Your task to perform on an android device: Open calendar and show me the first week of next month Image 0: 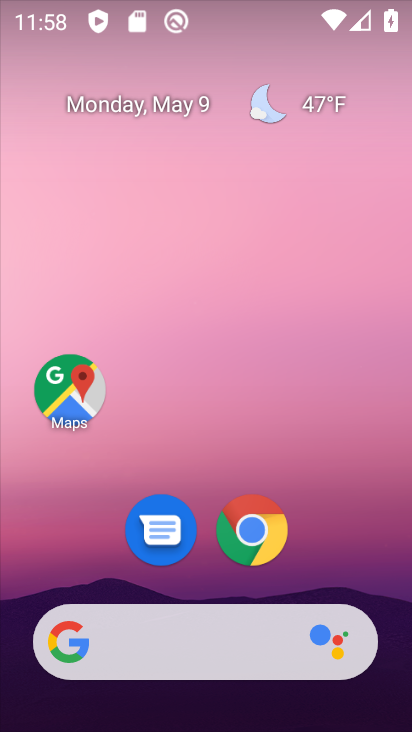
Step 0: drag from (335, 559) to (399, 156)
Your task to perform on an android device: Open calendar and show me the first week of next month Image 1: 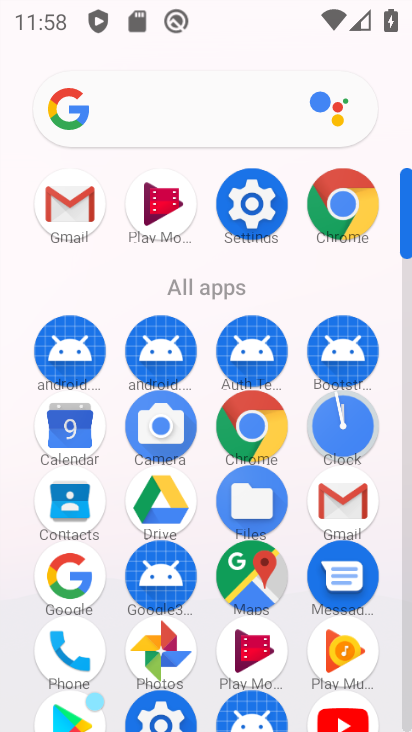
Step 1: click (81, 438)
Your task to perform on an android device: Open calendar and show me the first week of next month Image 2: 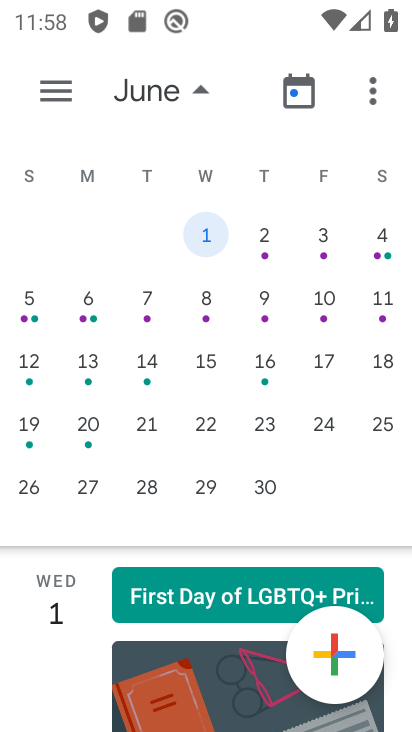
Step 2: click (203, 249)
Your task to perform on an android device: Open calendar and show me the first week of next month Image 3: 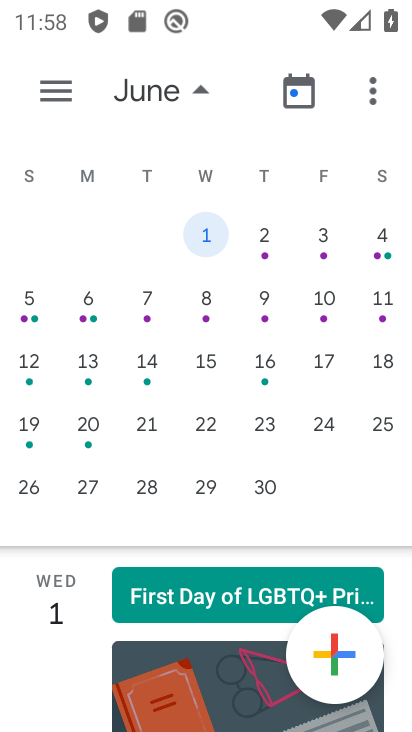
Step 3: task complete